Your task to perform on an android device: open a bookmark in the chrome app Image 0: 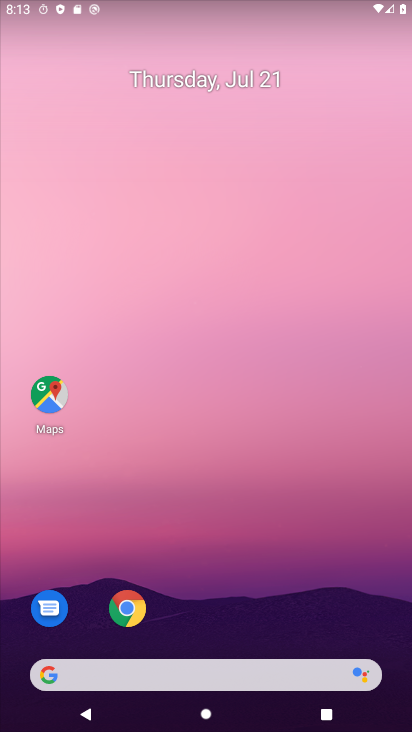
Step 0: click (149, 609)
Your task to perform on an android device: open a bookmark in the chrome app Image 1: 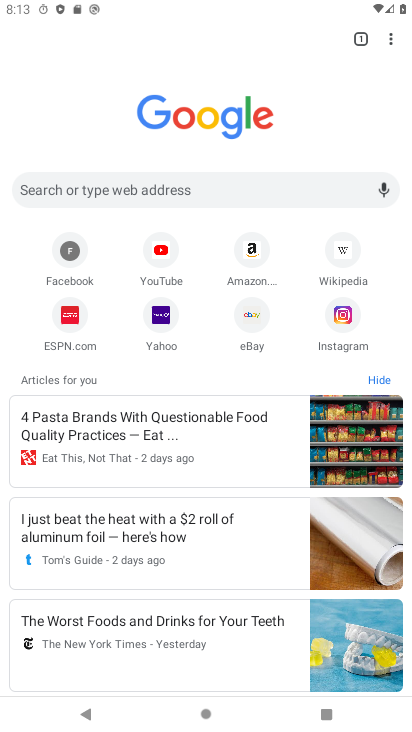
Step 1: task complete